Your task to perform on an android device: Open the Play Movies app and select the watchlist tab. Image 0: 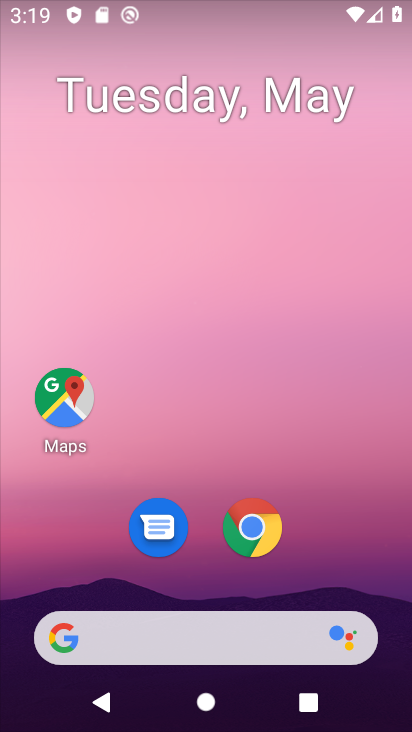
Step 0: drag from (82, 580) to (186, 101)
Your task to perform on an android device: Open the Play Movies app and select the watchlist tab. Image 1: 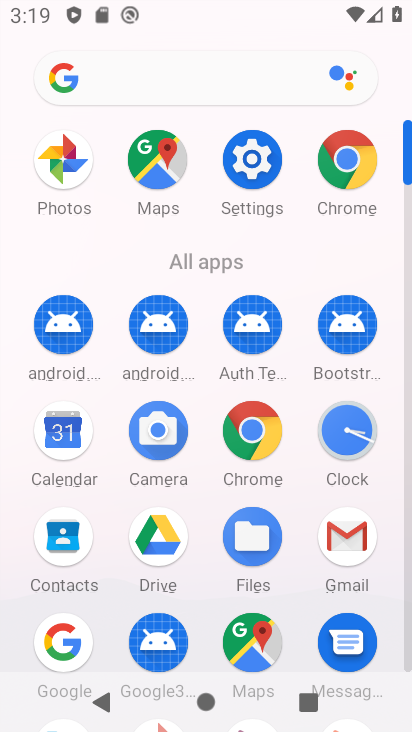
Step 1: drag from (204, 624) to (269, 372)
Your task to perform on an android device: Open the Play Movies app and select the watchlist tab. Image 2: 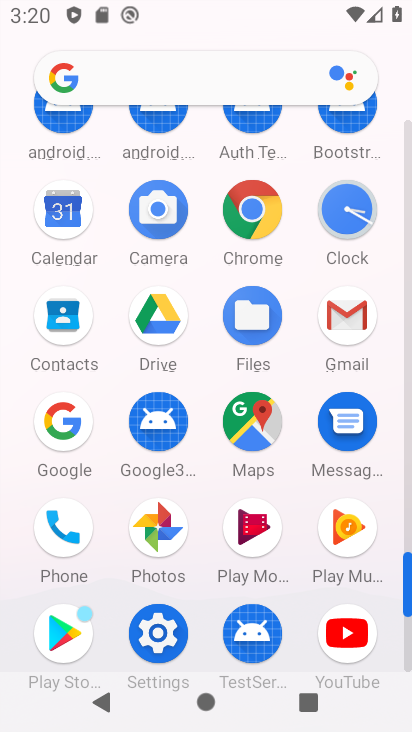
Step 2: click (257, 536)
Your task to perform on an android device: Open the Play Movies app and select the watchlist tab. Image 3: 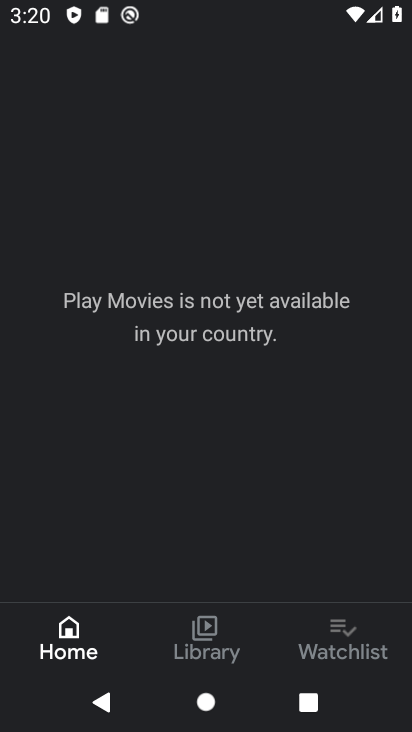
Step 3: click (324, 636)
Your task to perform on an android device: Open the Play Movies app and select the watchlist tab. Image 4: 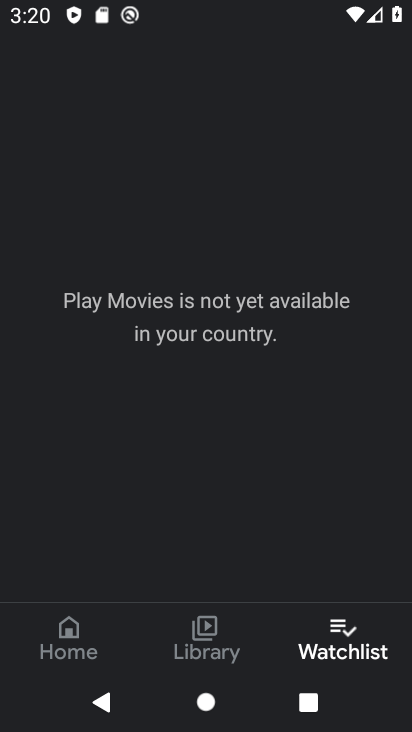
Step 4: task complete